Your task to perform on an android device: Show me recent news Image 0: 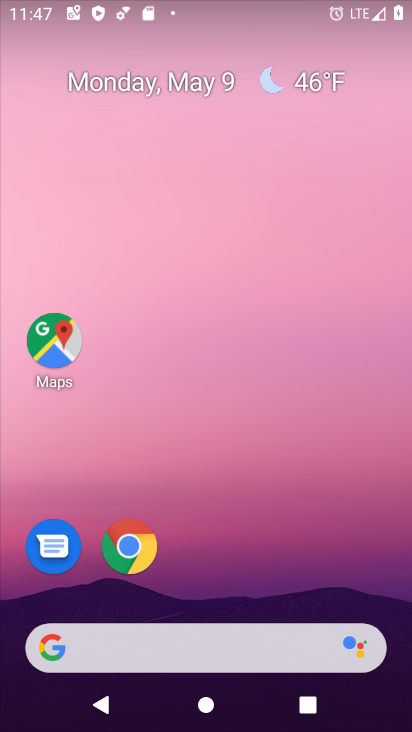
Step 0: drag from (5, 258) to (411, 589)
Your task to perform on an android device: Show me recent news Image 1: 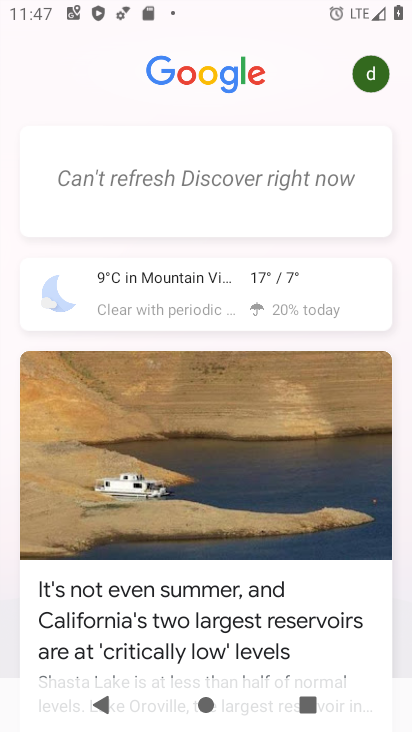
Step 1: task complete